Your task to perform on an android device: toggle notifications settings in the gmail app Image 0: 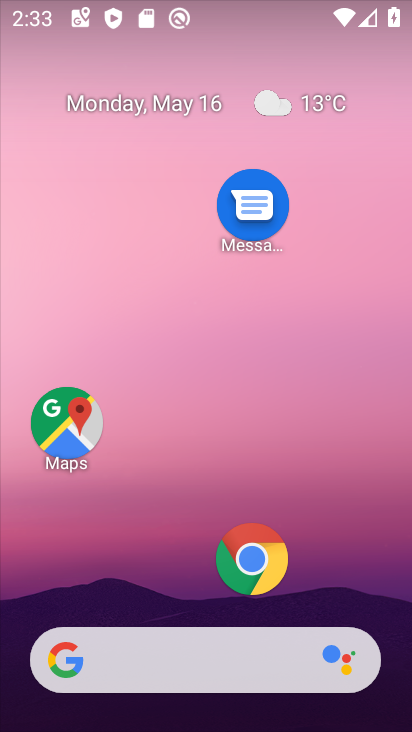
Step 0: click (171, 605)
Your task to perform on an android device: toggle notifications settings in the gmail app Image 1: 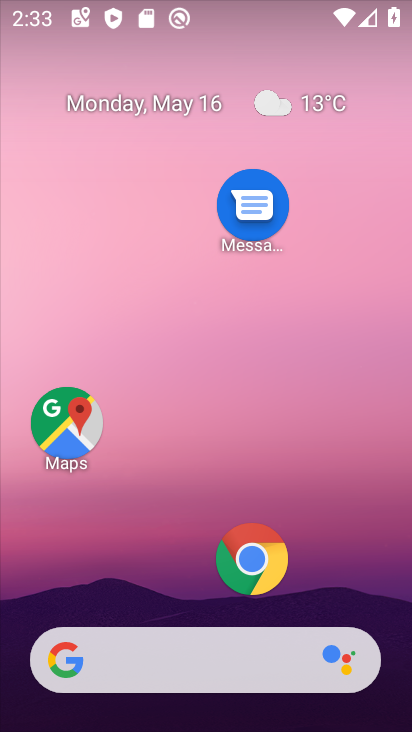
Step 1: drag from (217, 498) to (261, 103)
Your task to perform on an android device: toggle notifications settings in the gmail app Image 2: 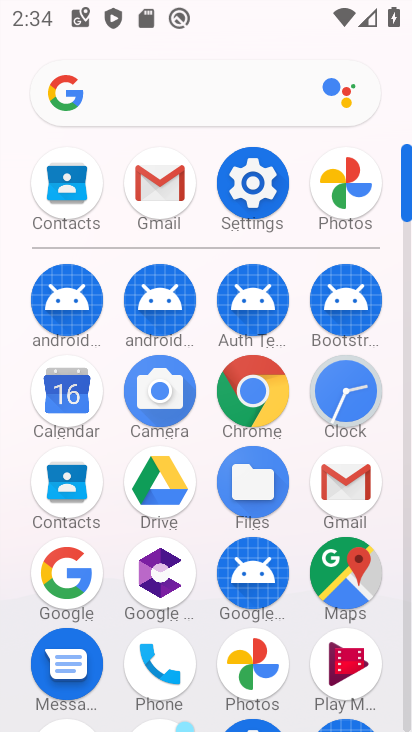
Step 2: click (156, 183)
Your task to perform on an android device: toggle notifications settings in the gmail app Image 3: 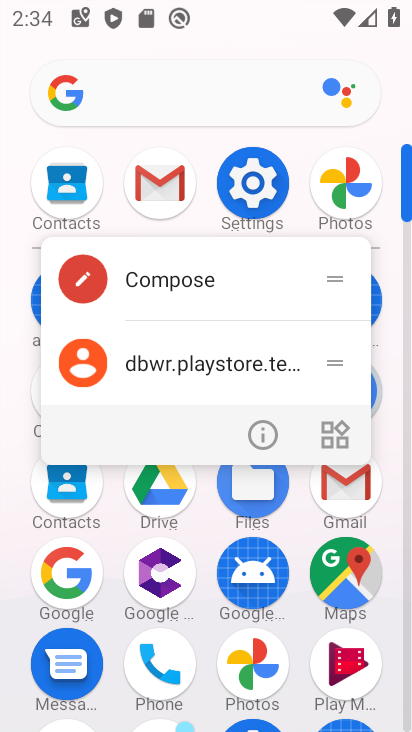
Step 3: click (265, 429)
Your task to perform on an android device: toggle notifications settings in the gmail app Image 4: 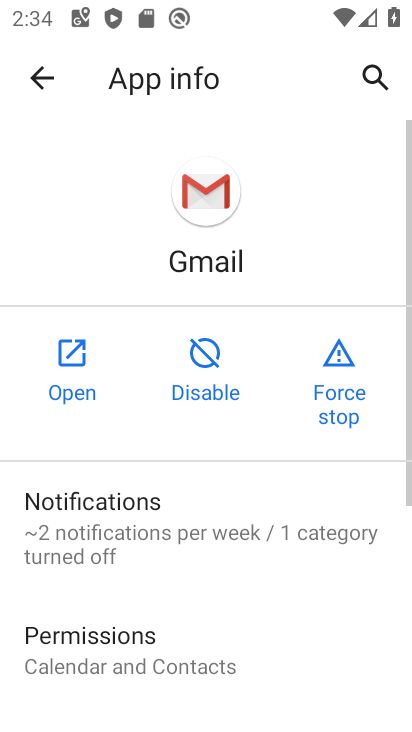
Step 4: click (65, 374)
Your task to perform on an android device: toggle notifications settings in the gmail app Image 5: 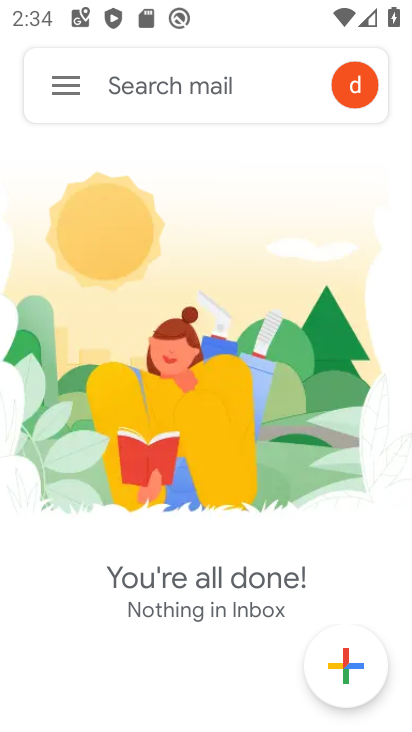
Step 5: click (64, 88)
Your task to perform on an android device: toggle notifications settings in the gmail app Image 6: 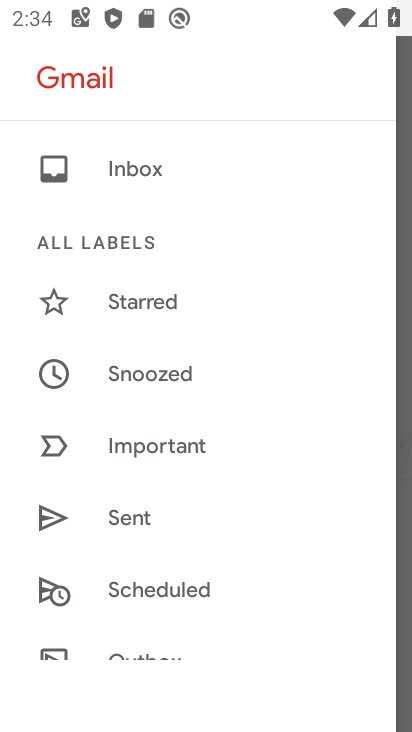
Step 6: drag from (141, 532) to (200, 154)
Your task to perform on an android device: toggle notifications settings in the gmail app Image 7: 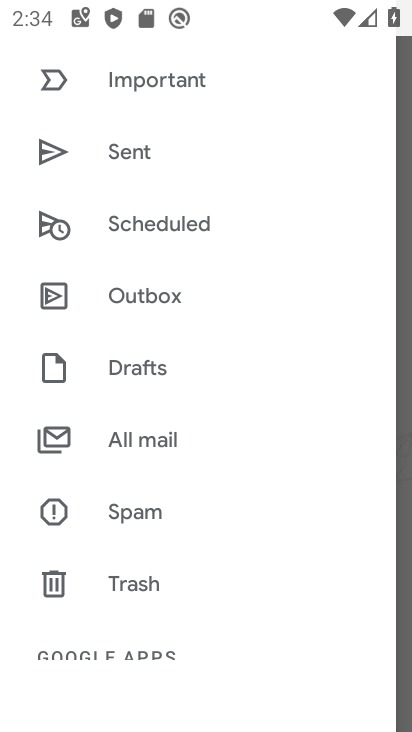
Step 7: drag from (113, 604) to (194, 274)
Your task to perform on an android device: toggle notifications settings in the gmail app Image 8: 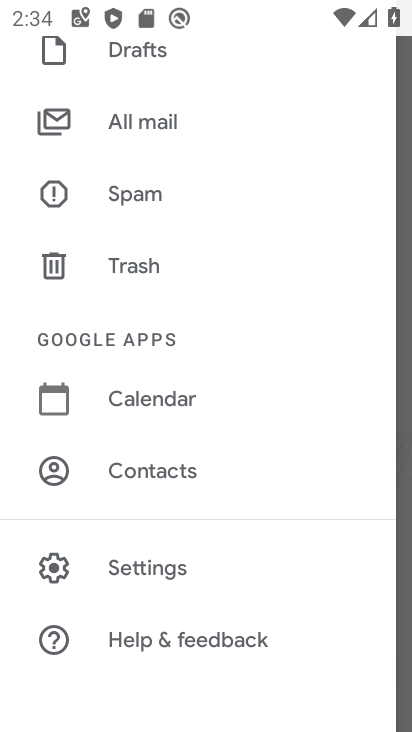
Step 8: click (157, 575)
Your task to perform on an android device: toggle notifications settings in the gmail app Image 9: 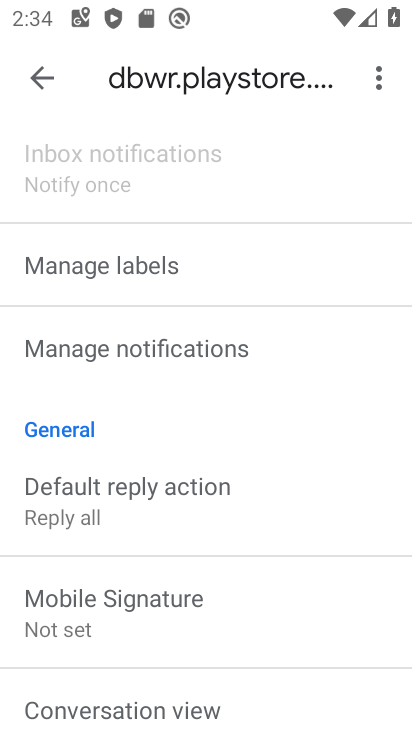
Step 9: click (173, 343)
Your task to perform on an android device: toggle notifications settings in the gmail app Image 10: 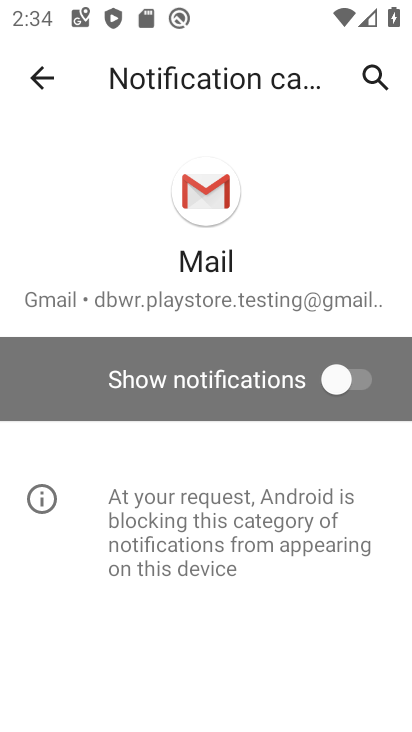
Step 10: click (334, 383)
Your task to perform on an android device: toggle notifications settings in the gmail app Image 11: 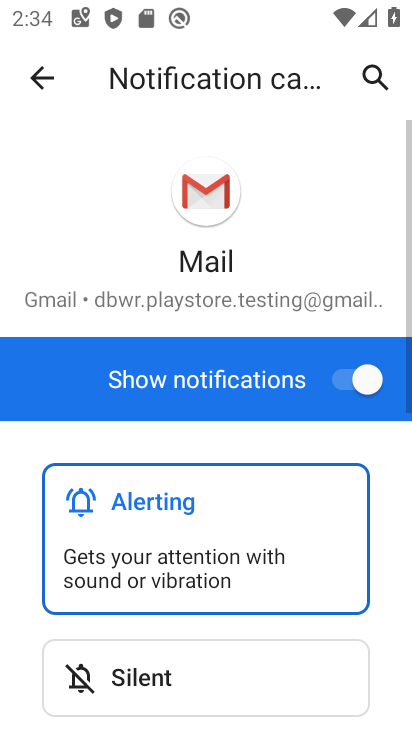
Step 11: task complete